Your task to perform on an android device: delete location history Image 0: 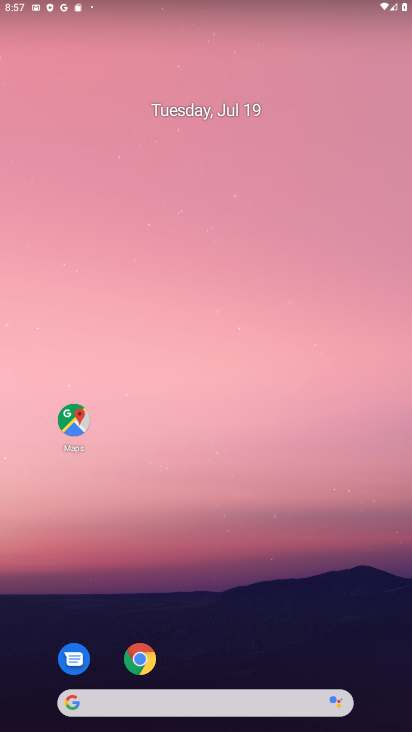
Step 0: drag from (253, 638) to (338, 83)
Your task to perform on an android device: delete location history Image 1: 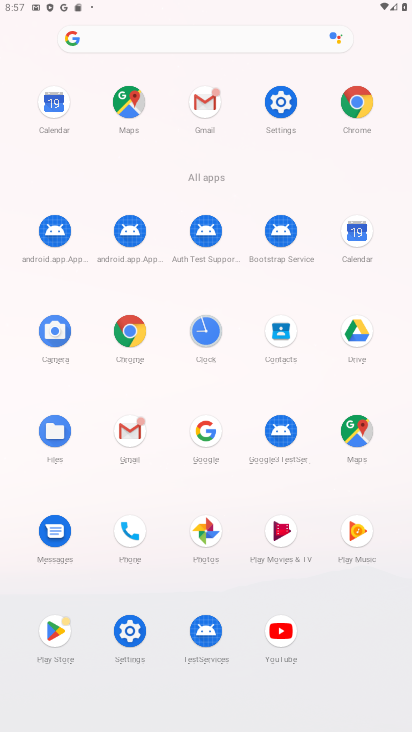
Step 1: click (361, 425)
Your task to perform on an android device: delete location history Image 2: 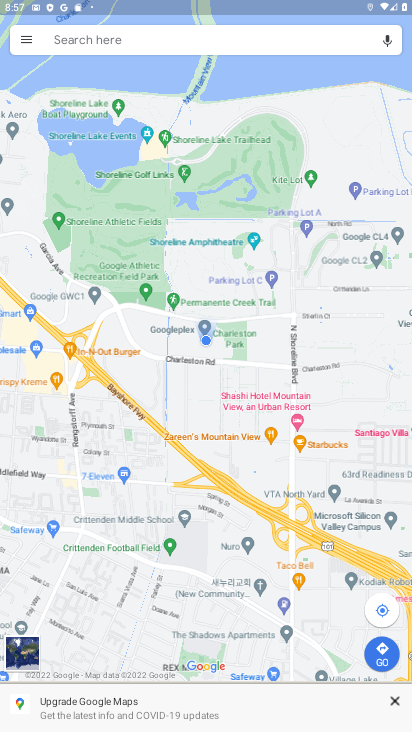
Step 2: click (27, 48)
Your task to perform on an android device: delete location history Image 3: 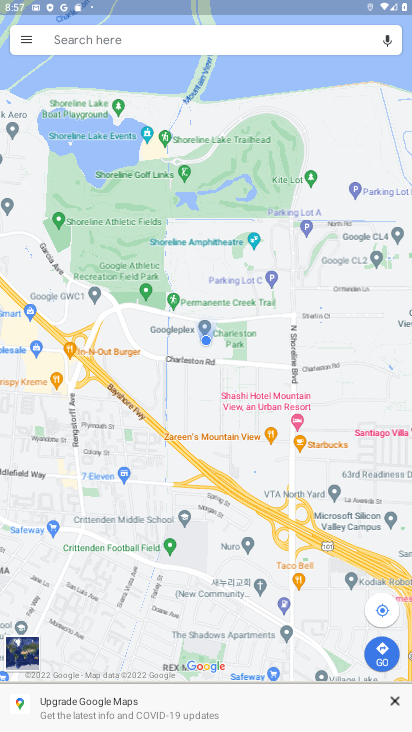
Step 3: click (27, 39)
Your task to perform on an android device: delete location history Image 4: 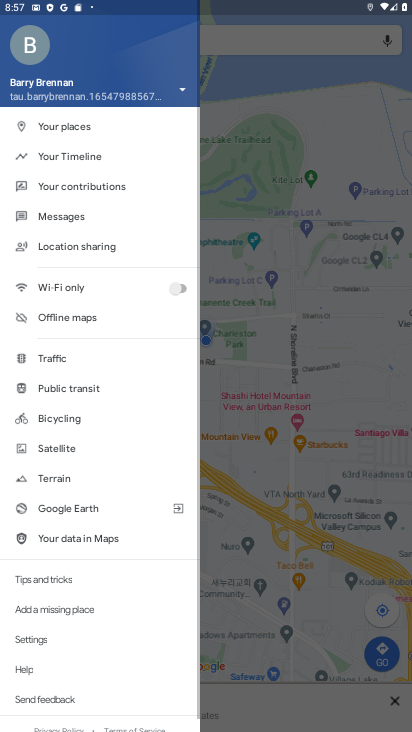
Step 4: click (54, 156)
Your task to perform on an android device: delete location history Image 5: 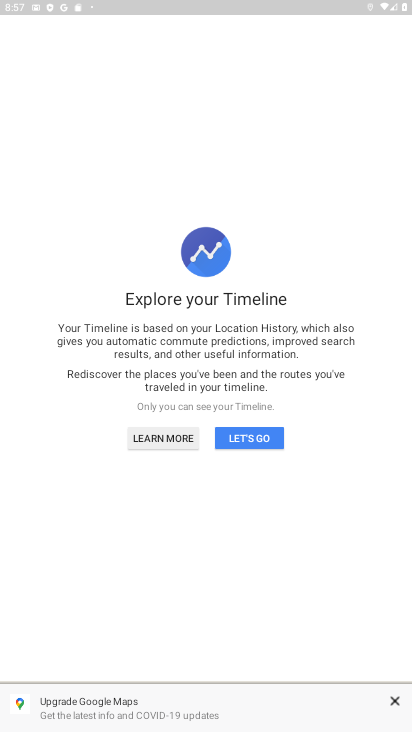
Step 5: click (239, 435)
Your task to perform on an android device: delete location history Image 6: 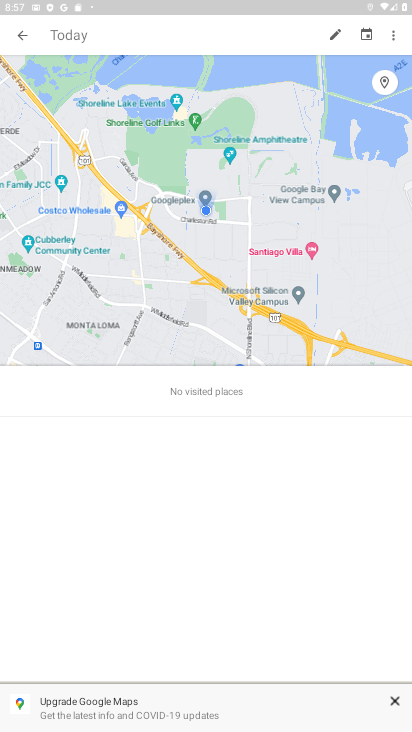
Step 6: click (393, 31)
Your task to perform on an android device: delete location history Image 7: 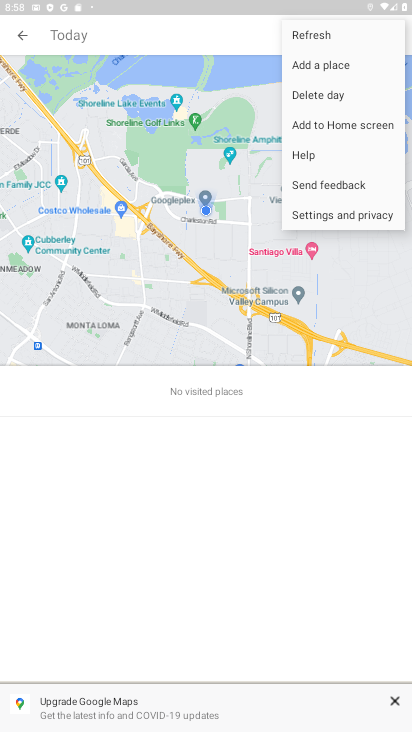
Step 7: click (356, 221)
Your task to perform on an android device: delete location history Image 8: 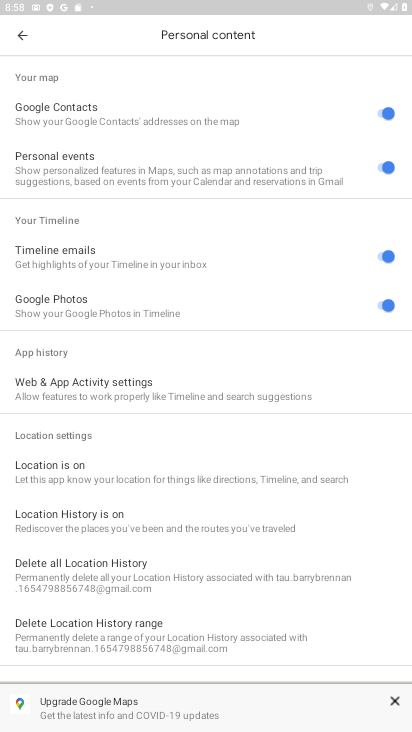
Step 8: click (82, 562)
Your task to perform on an android device: delete location history Image 9: 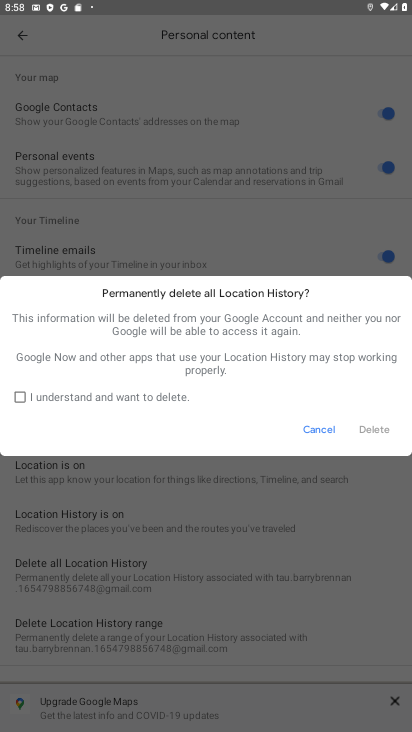
Step 9: click (18, 397)
Your task to perform on an android device: delete location history Image 10: 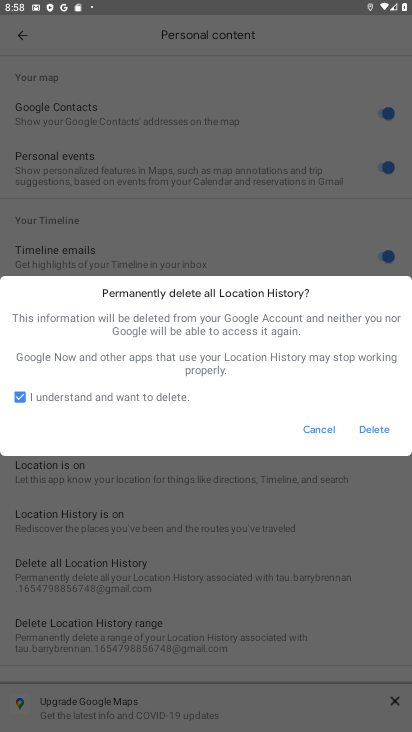
Step 10: click (369, 427)
Your task to perform on an android device: delete location history Image 11: 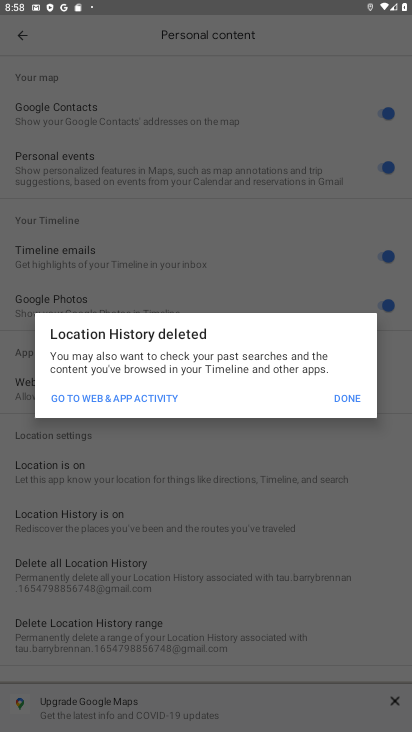
Step 11: click (354, 398)
Your task to perform on an android device: delete location history Image 12: 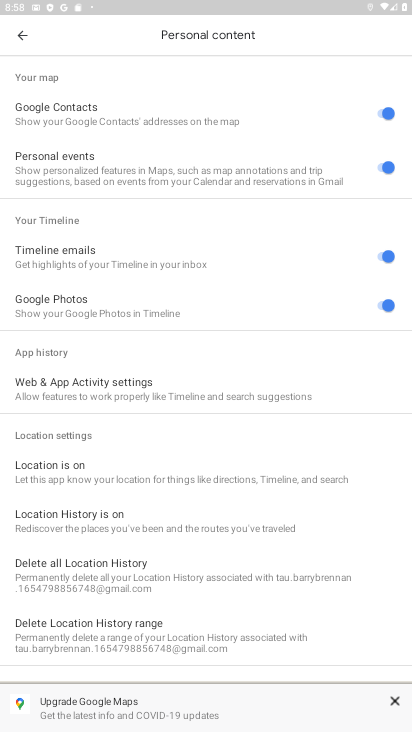
Step 12: task complete